Your task to perform on an android device: Open Youtube and go to the subscriptions tab Image 0: 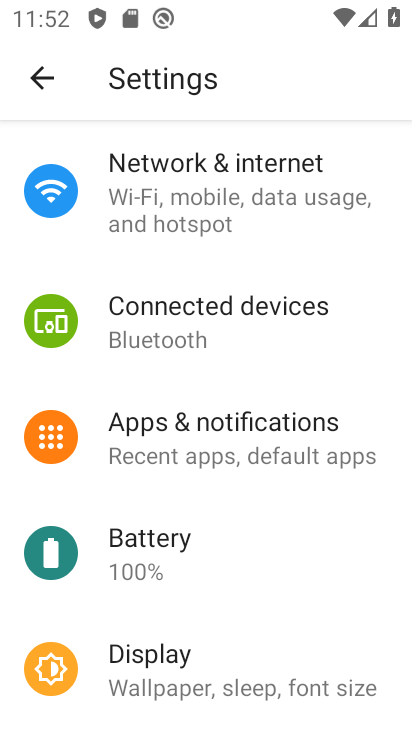
Step 0: press back button
Your task to perform on an android device: Open Youtube and go to the subscriptions tab Image 1: 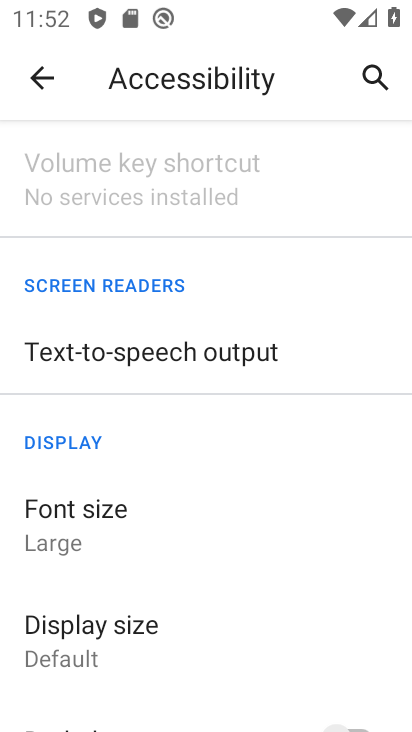
Step 1: press back button
Your task to perform on an android device: Open Youtube and go to the subscriptions tab Image 2: 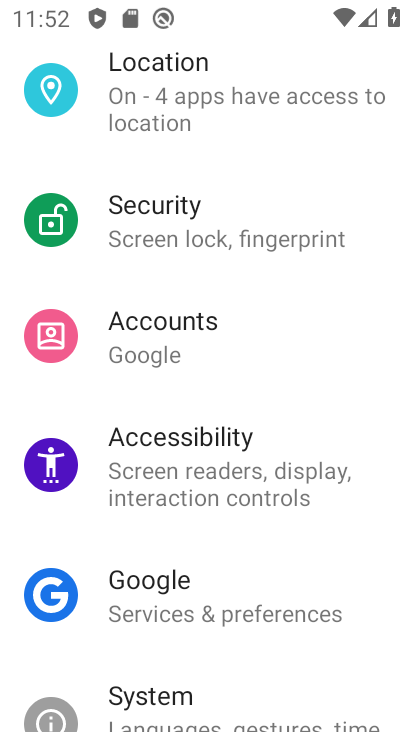
Step 2: press back button
Your task to perform on an android device: Open Youtube and go to the subscriptions tab Image 3: 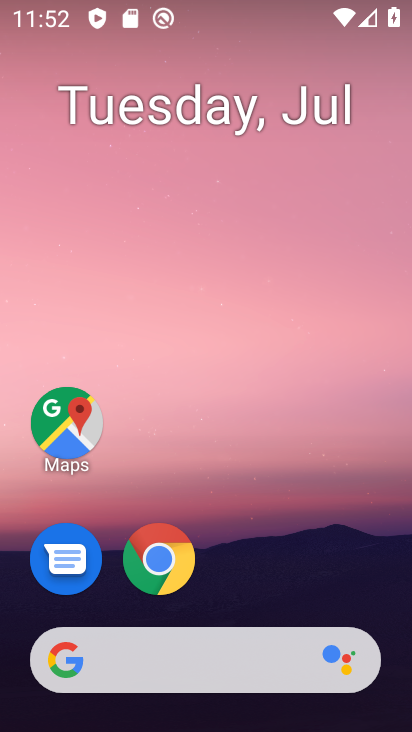
Step 3: drag from (229, 541) to (300, 0)
Your task to perform on an android device: Open Youtube and go to the subscriptions tab Image 4: 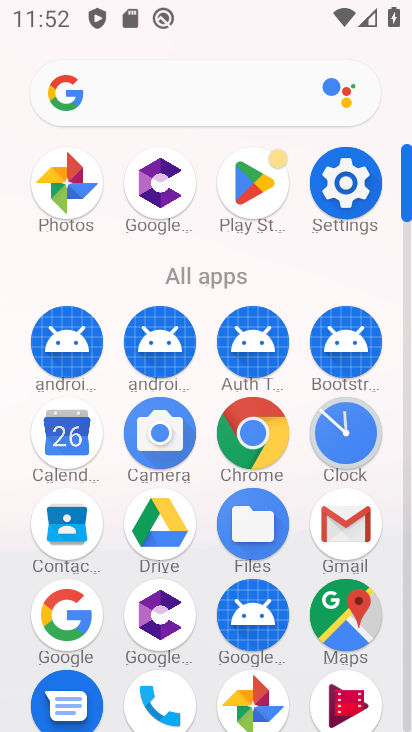
Step 4: drag from (187, 646) to (280, 99)
Your task to perform on an android device: Open Youtube and go to the subscriptions tab Image 5: 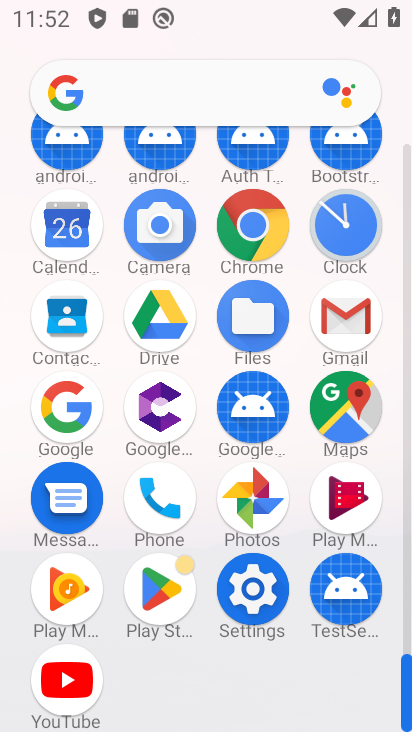
Step 5: click (63, 679)
Your task to perform on an android device: Open Youtube and go to the subscriptions tab Image 6: 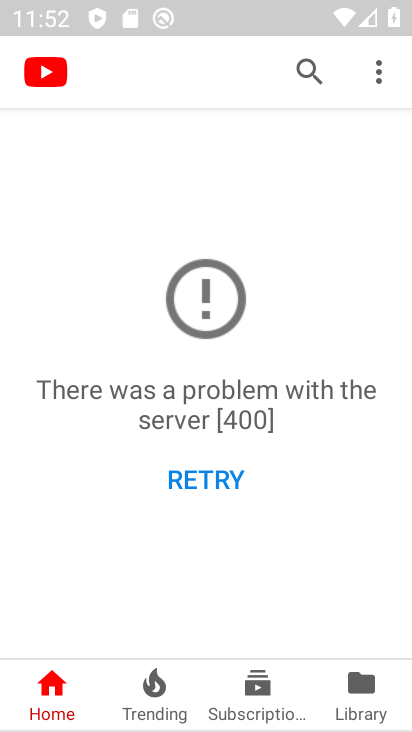
Step 6: click (260, 694)
Your task to perform on an android device: Open Youtube and go to the subscriptions tab Image 7: 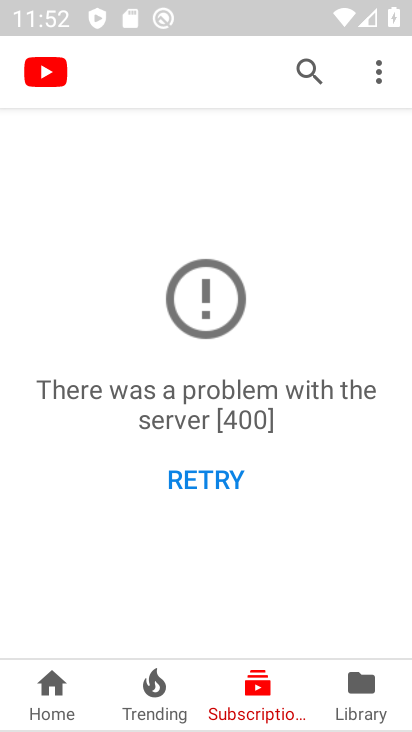
Step 7: task complete